Your task to perform on an android device: turn on sleep mode Image 0: 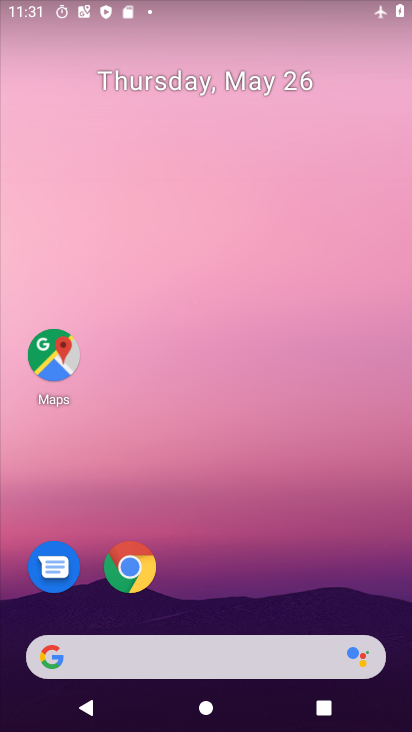
Step 0: click (219, 668)
Your task to perform on an android device: turn on sleep mode Image 1: 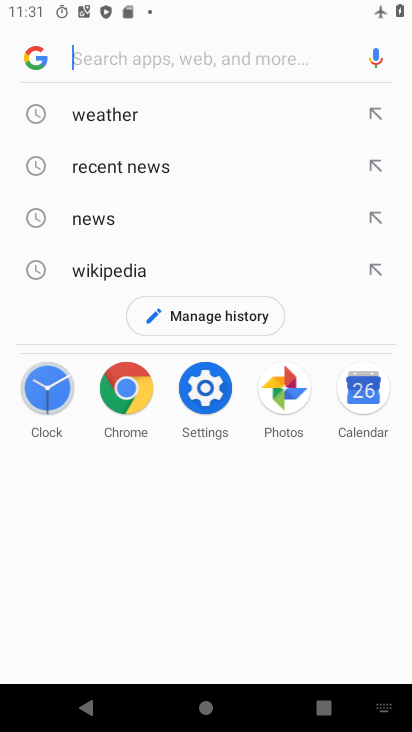
Step 1: press home button
Your task to perform on an android device: turn on sleep mode Image 2: 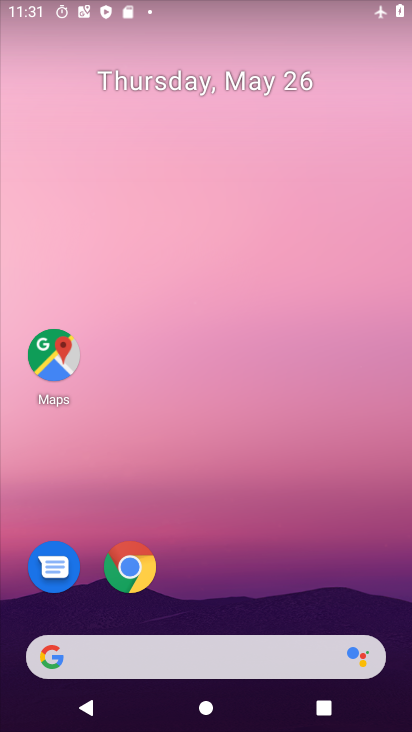
Step 2: drag from (258, 703) to (263, 52)
Your task to perform on an android device: turn on sleep mode Image 3: 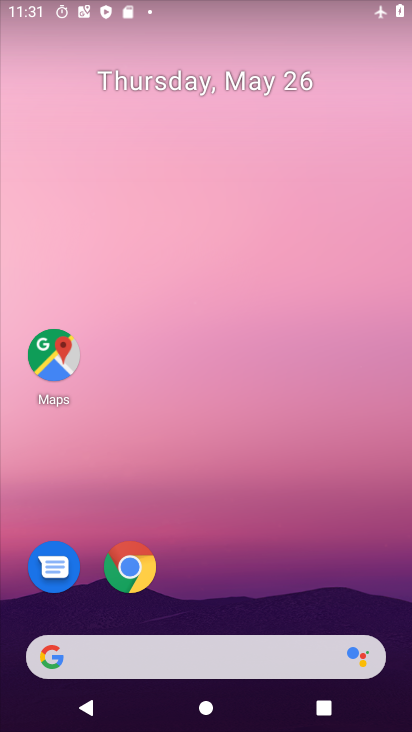
Step 3: drag from (164, 637) to (164, 1)
Your task to perform on an android device: turn on sleep mode Image 4: 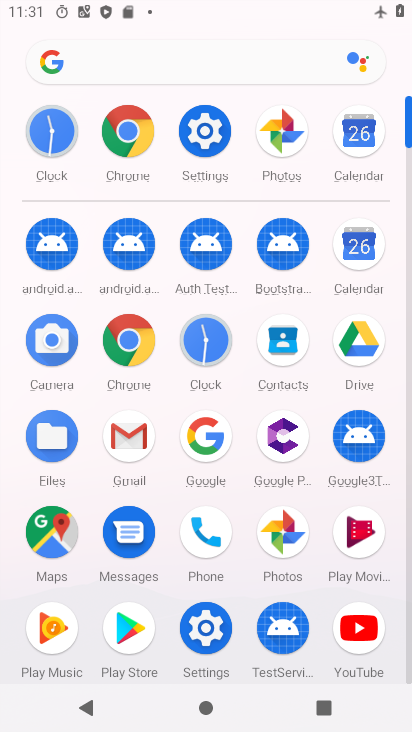
Step 4: click (202, 146)
Your task to perform on an android device: turn on sleep mode Image 5: 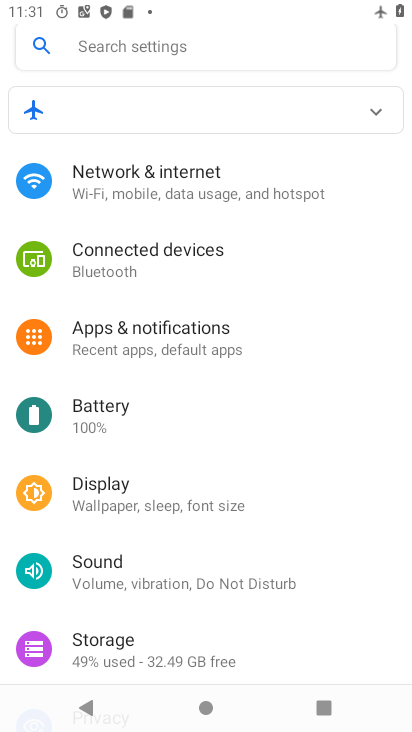
Step 5: click (252, 497)
Your task to perform on an android device: turn on sleep mode Image 6: 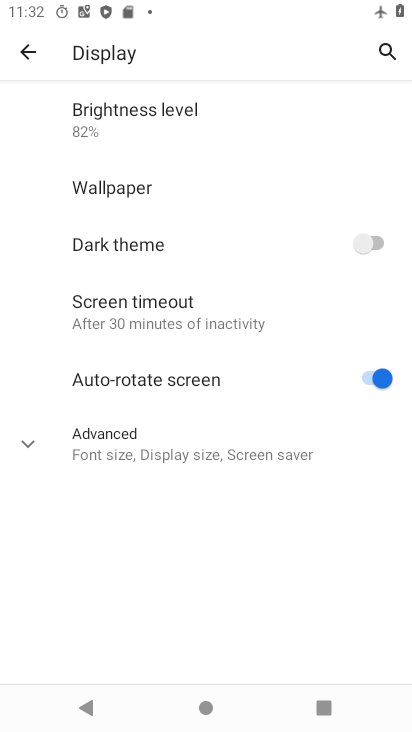
Step 6: task complete